Your task to perform on an android device: Search for the best rated mechanical keyboard on Amazon. Image 0: 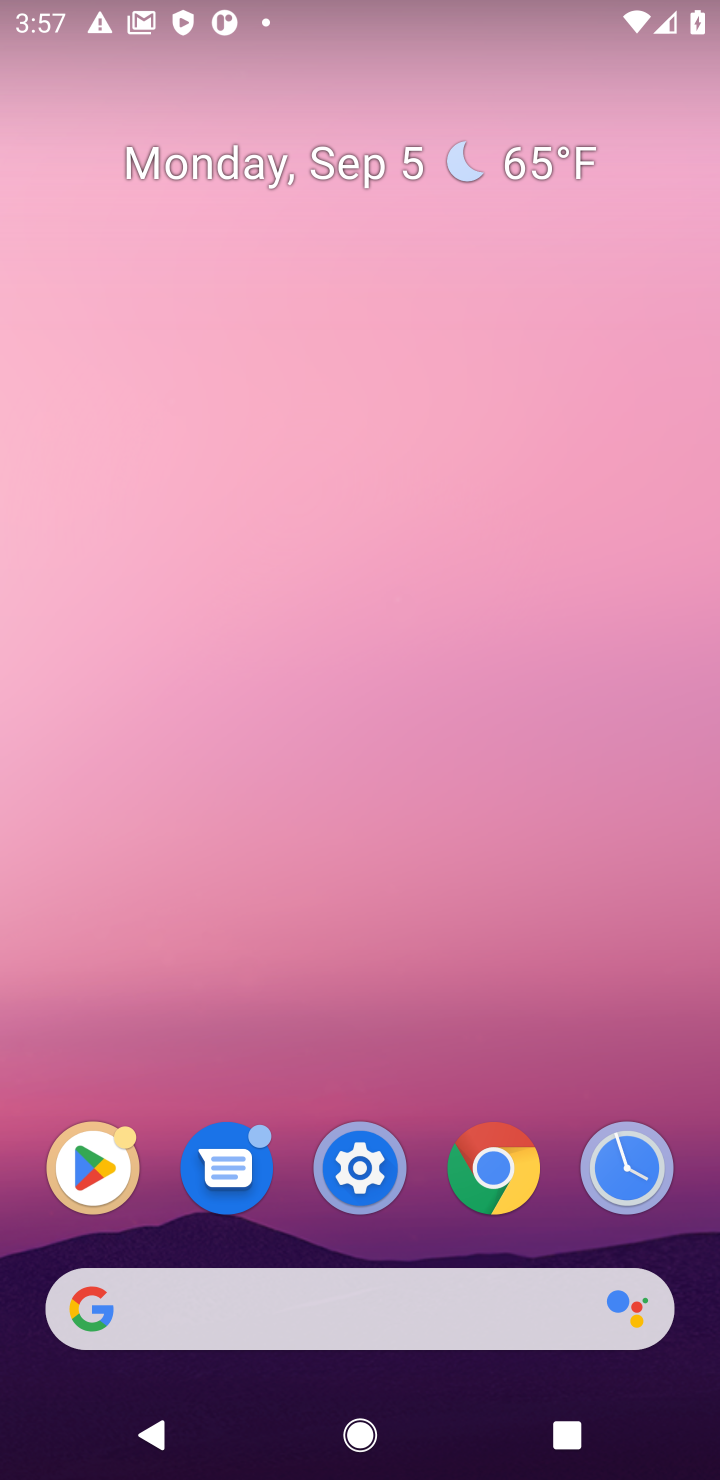
Step 0: click (510, 1174)
Your task to perform on an android device: Search for the best rated mechanical keyboard on Amazon. Image 1: 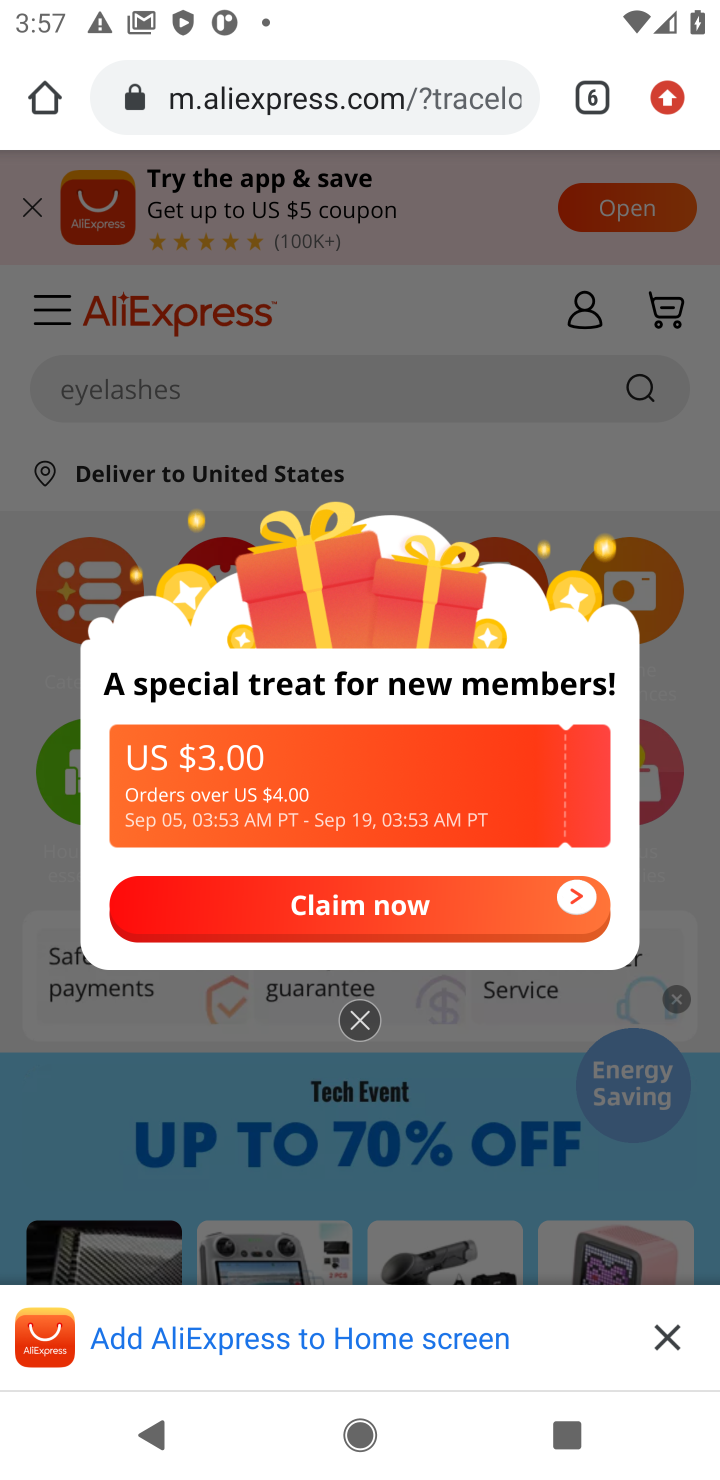
Step 1: click (590, 84)
Your task to perform on an android device: Search for the best rated mechanical keyboard on Amazon. Image 2: 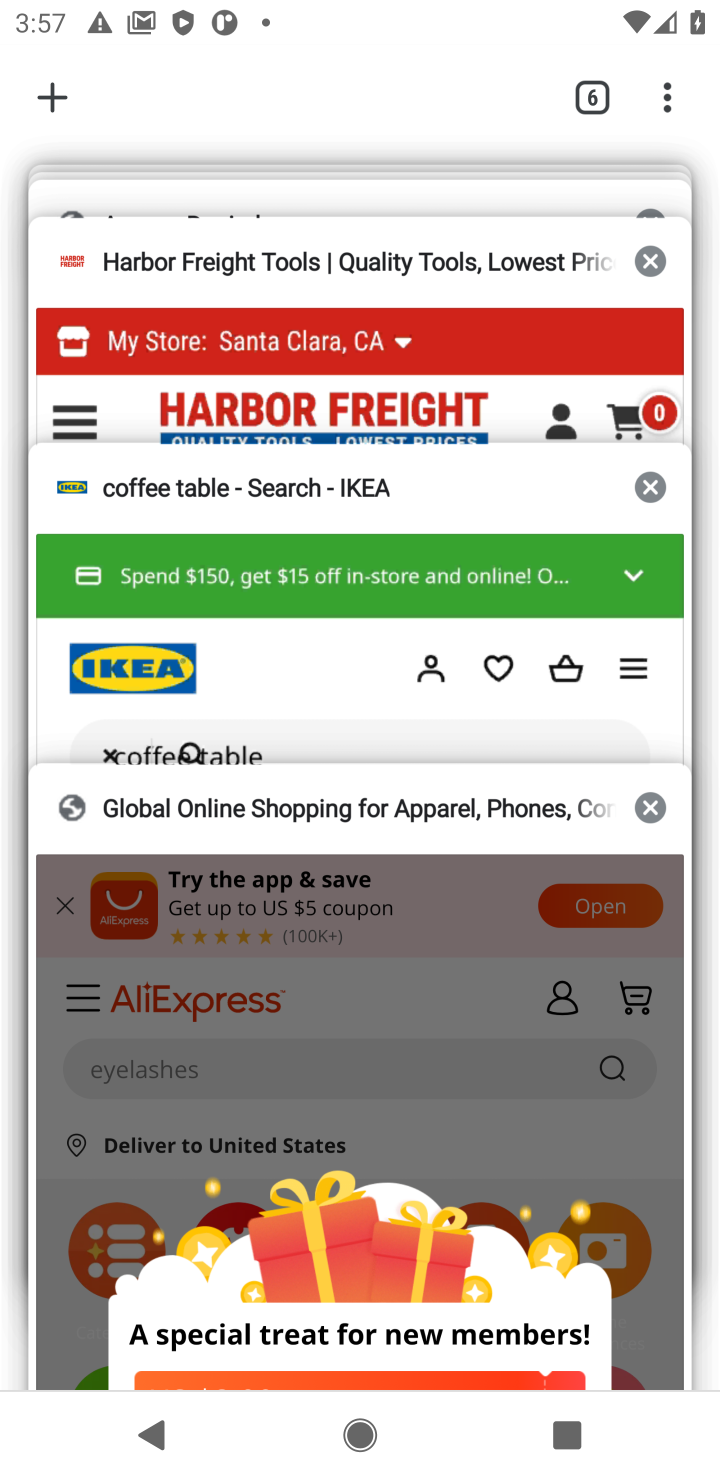
Step 2: click (46, 114)
Your task to perform on an android device: Search for the best rated mechanical keyboard on Amazon. Image 3: 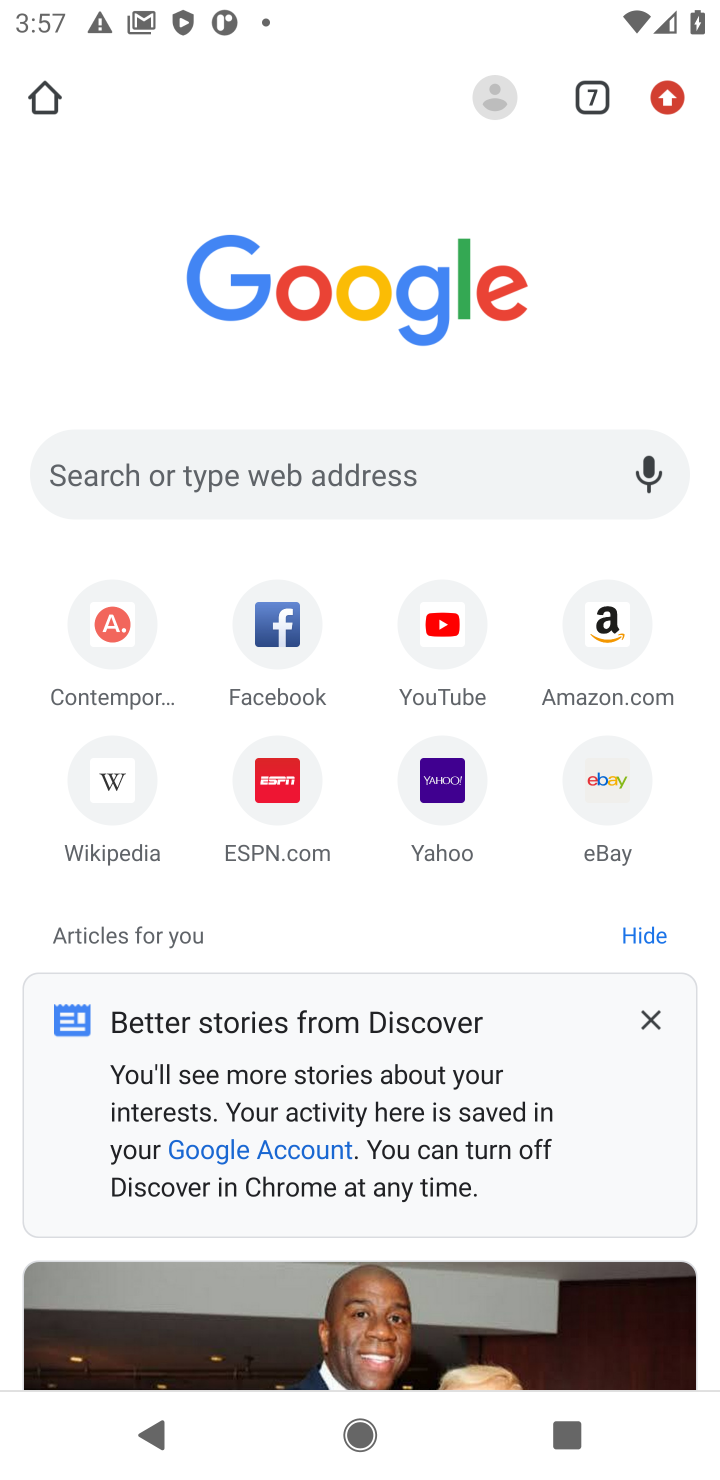
Step 3: click (615, 655)
Your task to perform on an android device: Search for the best rated mechanical keyboard on Amazon. Image 4: 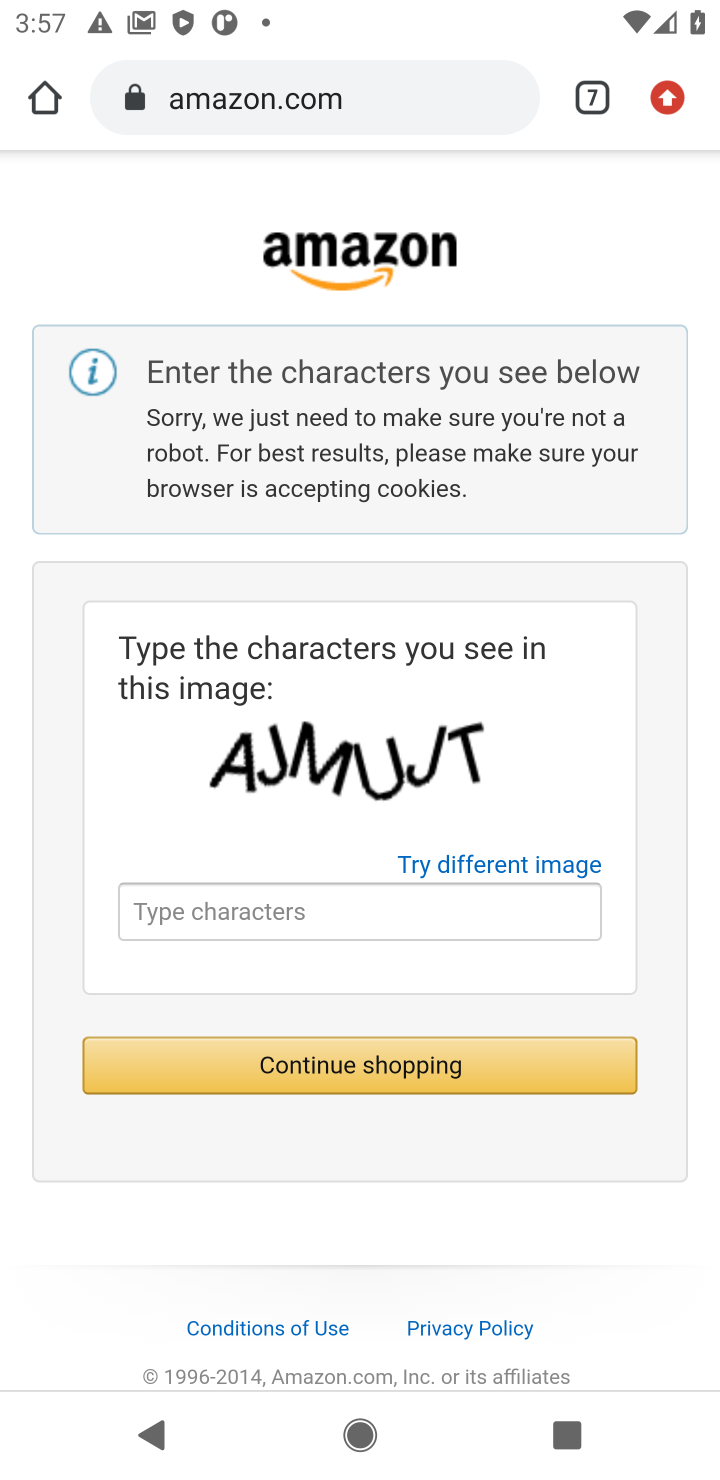
Step 4: click (27, 91)
Your task to perform on an android device: Search for the best rated mechanical keyboard on Amazon. Image 5: 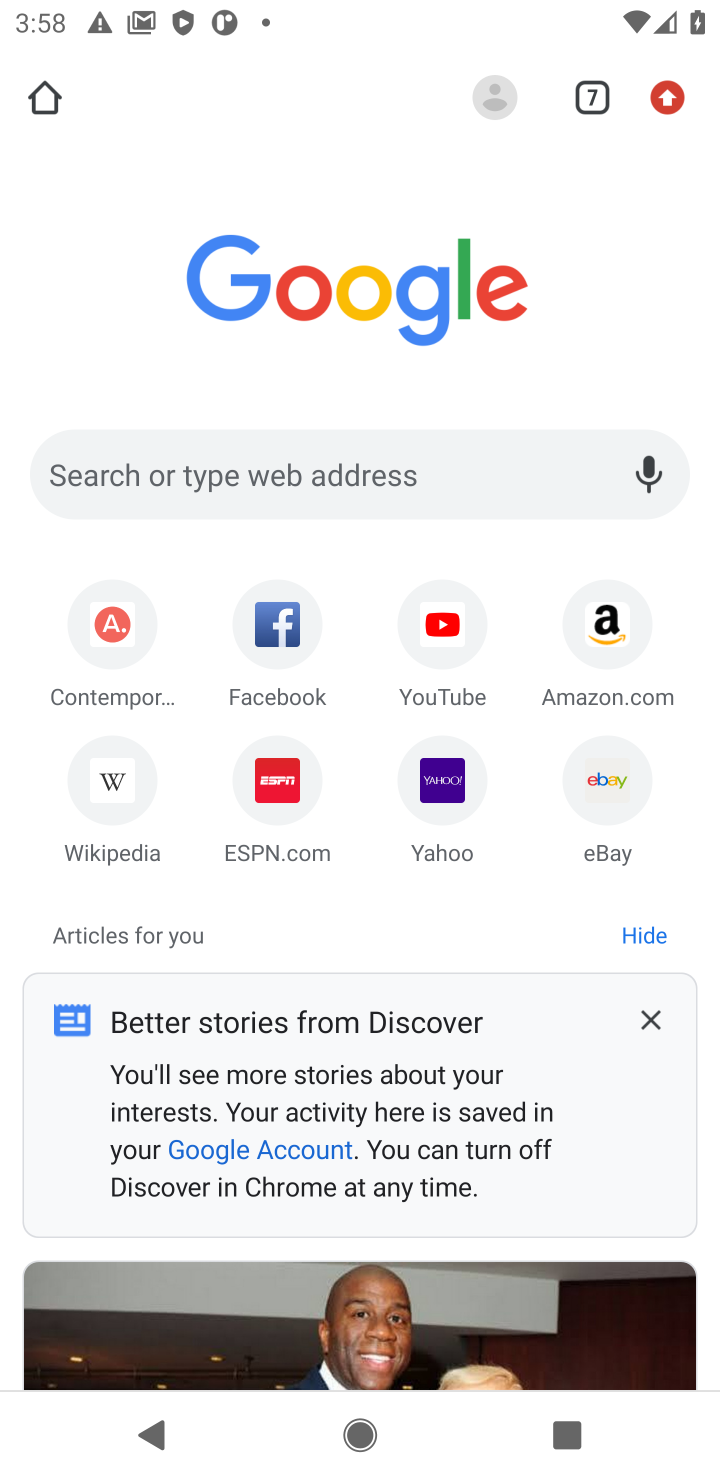
Step 5: click (605, 632)
Your task to perform on an android device: Search for the best rated mechanical keyboard on Amazon. Image 6: 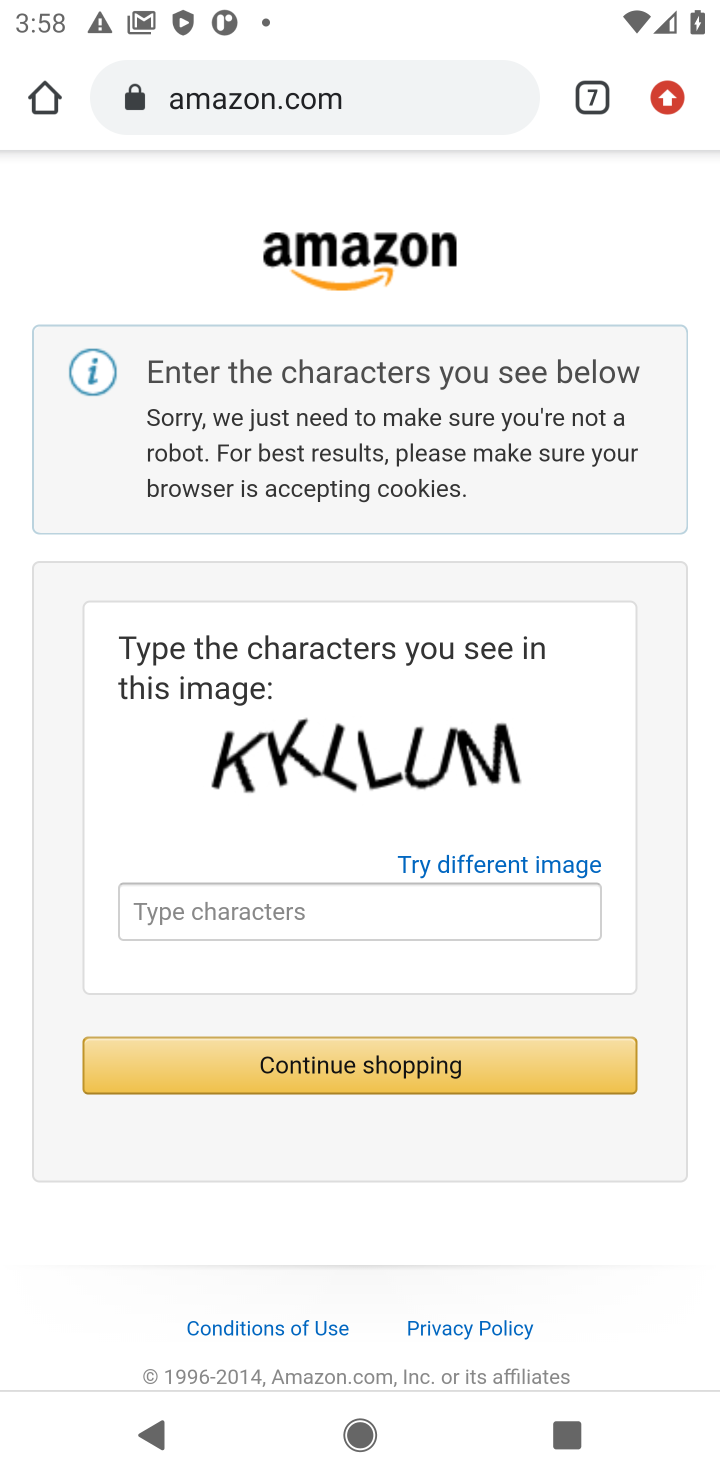
Step 6: click (227, 917)
Your task to perform on an android device: Search for the best rated mechanical keyboard on Amazon. Image 7: 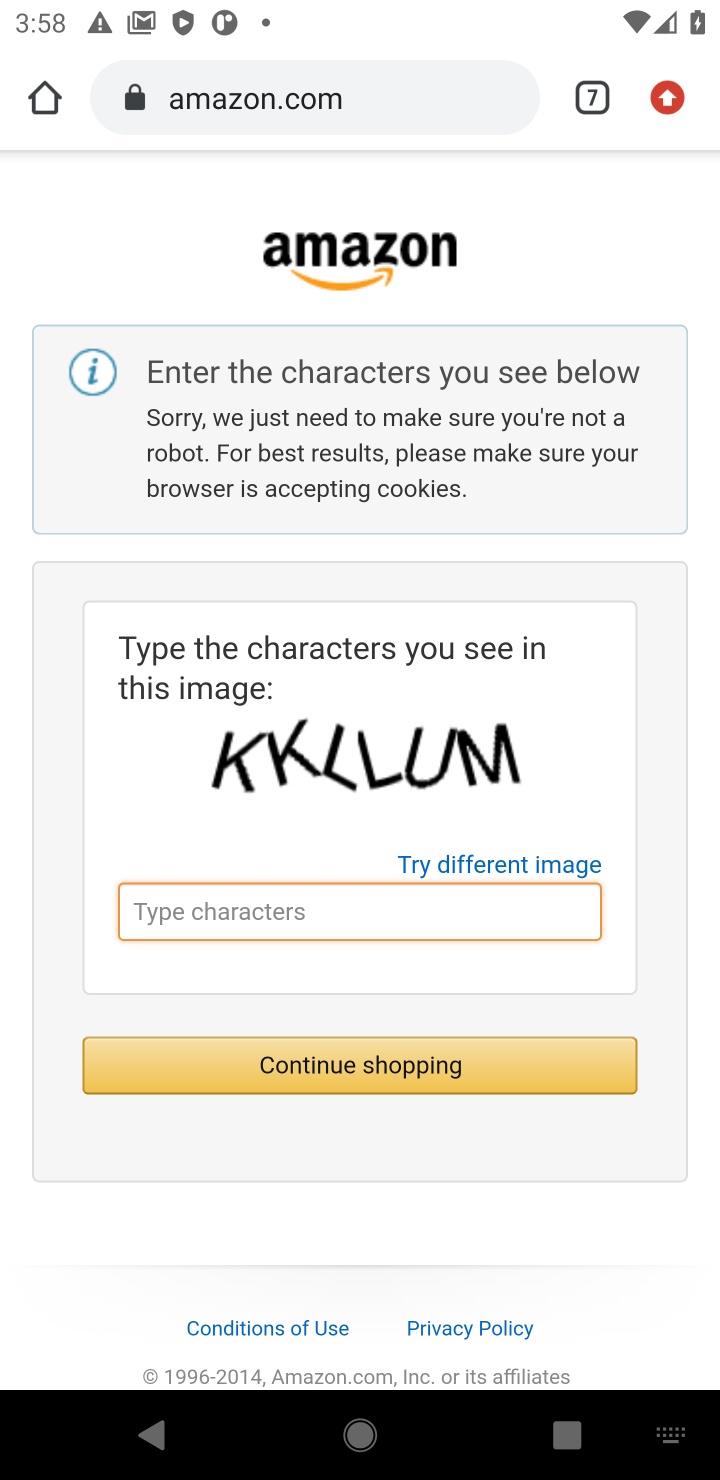
Step 7: click (227, 917)
Your task to perform on an android device: Search for the best rated mechanical keyboard on Amazon. Image 8: 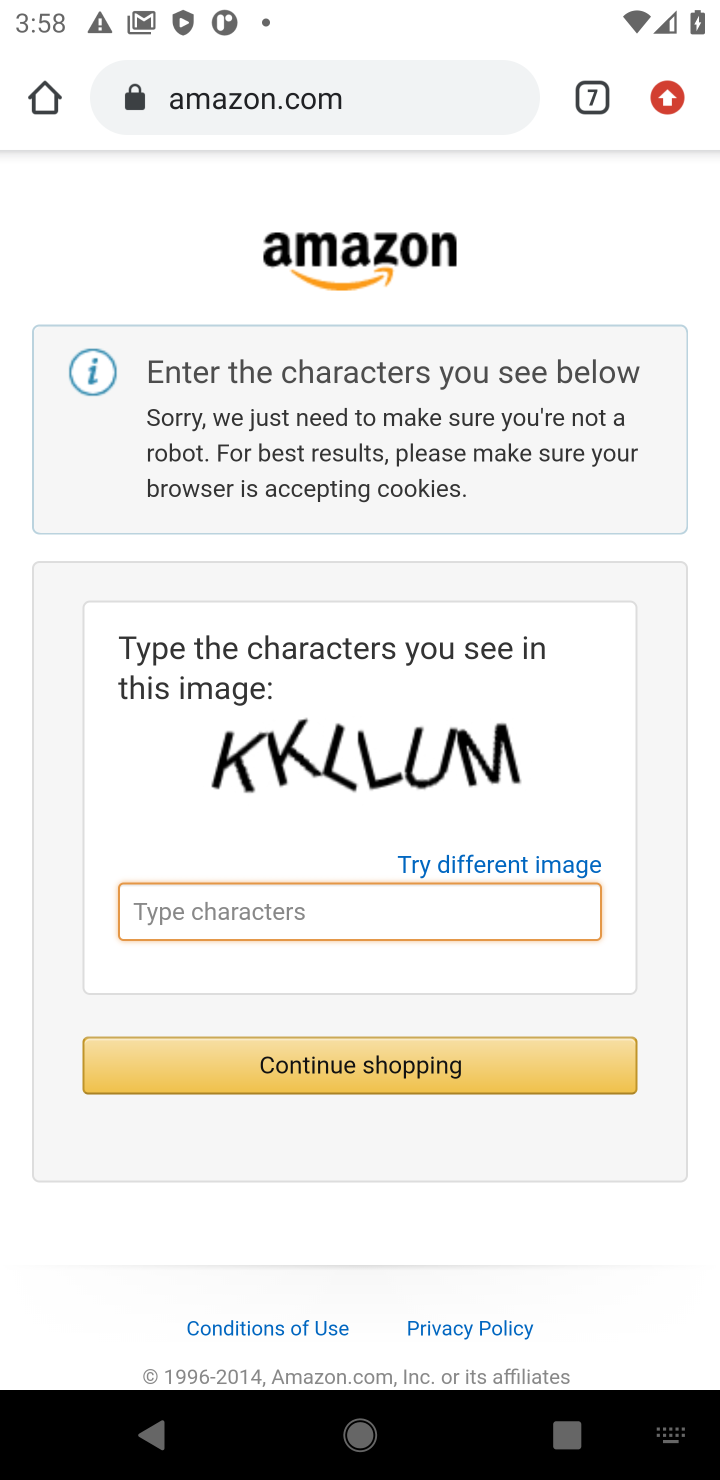
Step 8: type "KKLLUM"
Your task to perform on an android device: Search for the best rated mechanical keyboard on Amazon. Image 9: 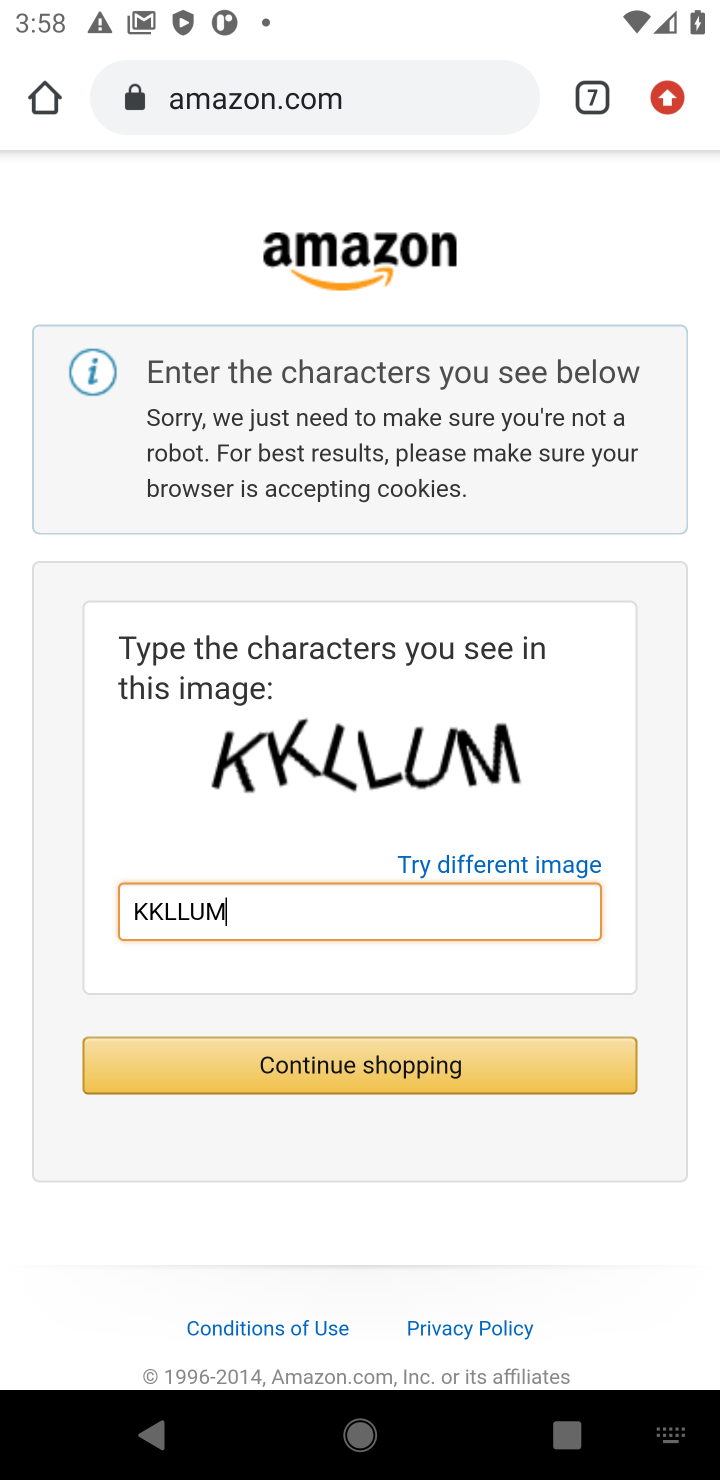
Step 9: click (282, 1077)
Your task to perform on an android device: Search for the best rated mechanical keyboard on Amazon. Image 10: 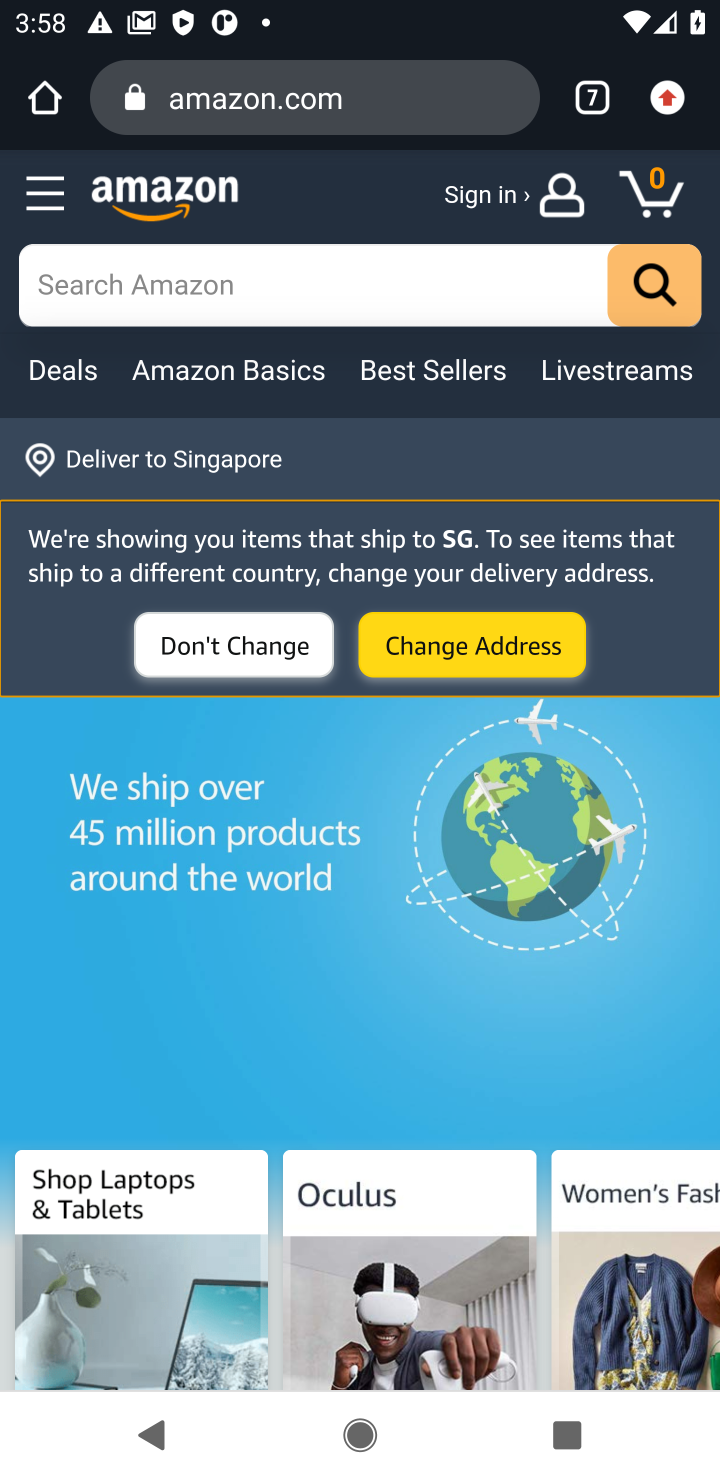
Step 10: click (186, 279)
Your task to perform on an android device: Search for the best rated mechanical keyboard on Amazon. Image 11: 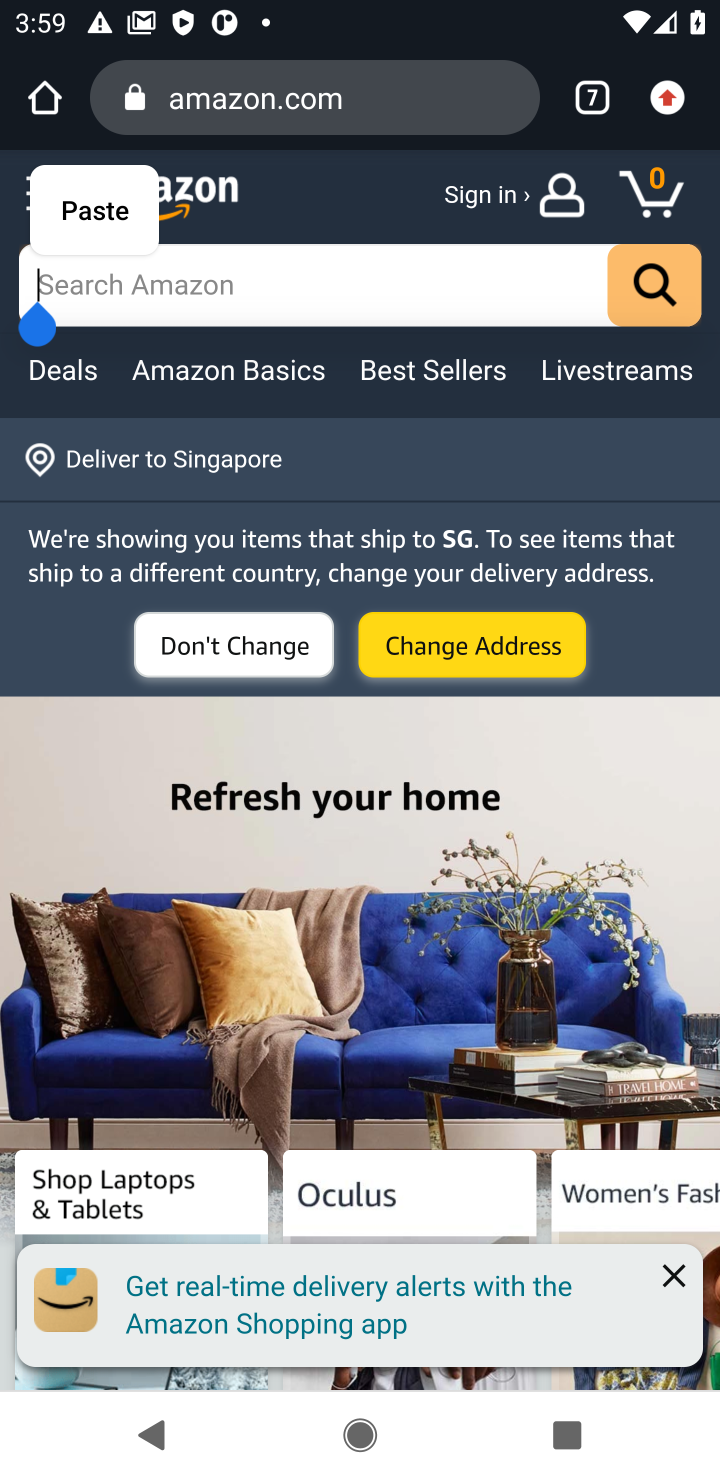
Step 11: type "best rated mechanical keyboard"
Your task to perform on an android device: Search for the best rated mechanical keyboard on Amazon. Image 12: 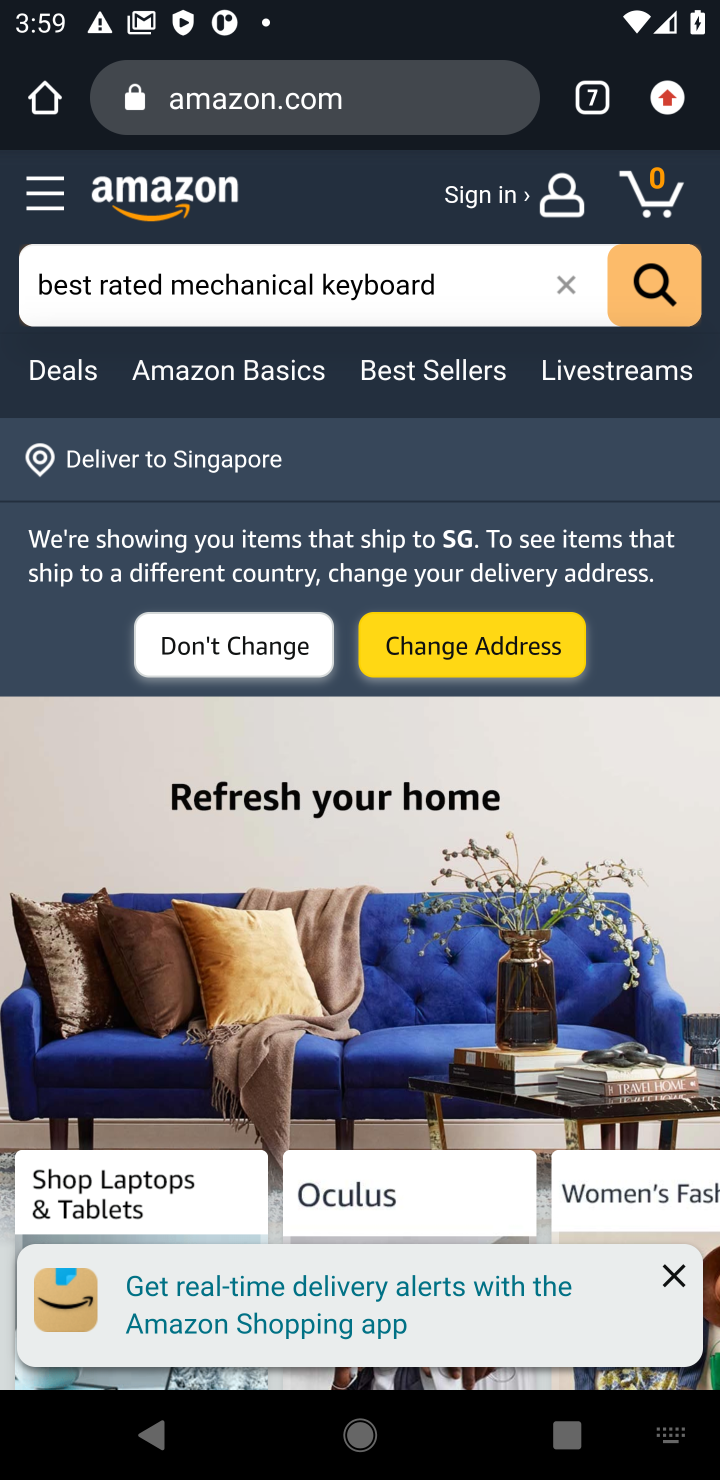
Step 12: click (657, 282)
Your task to perform on an android device: Search for the best rated mechanical keyboard on Amazon. Image 13: 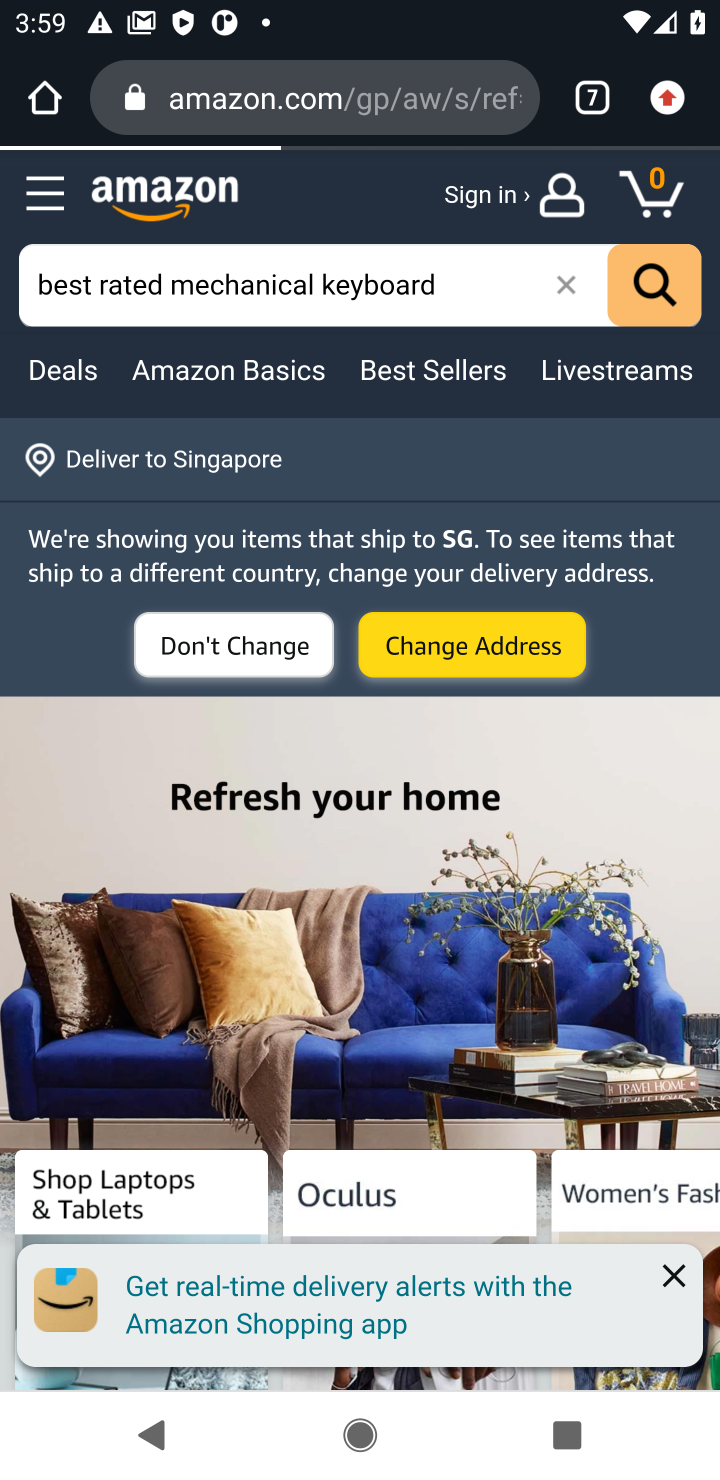
Step 13: click (657, 282)
Your task to perform on an android device: Search for the best rated mechanical keyboard on Amazon. Image 14: 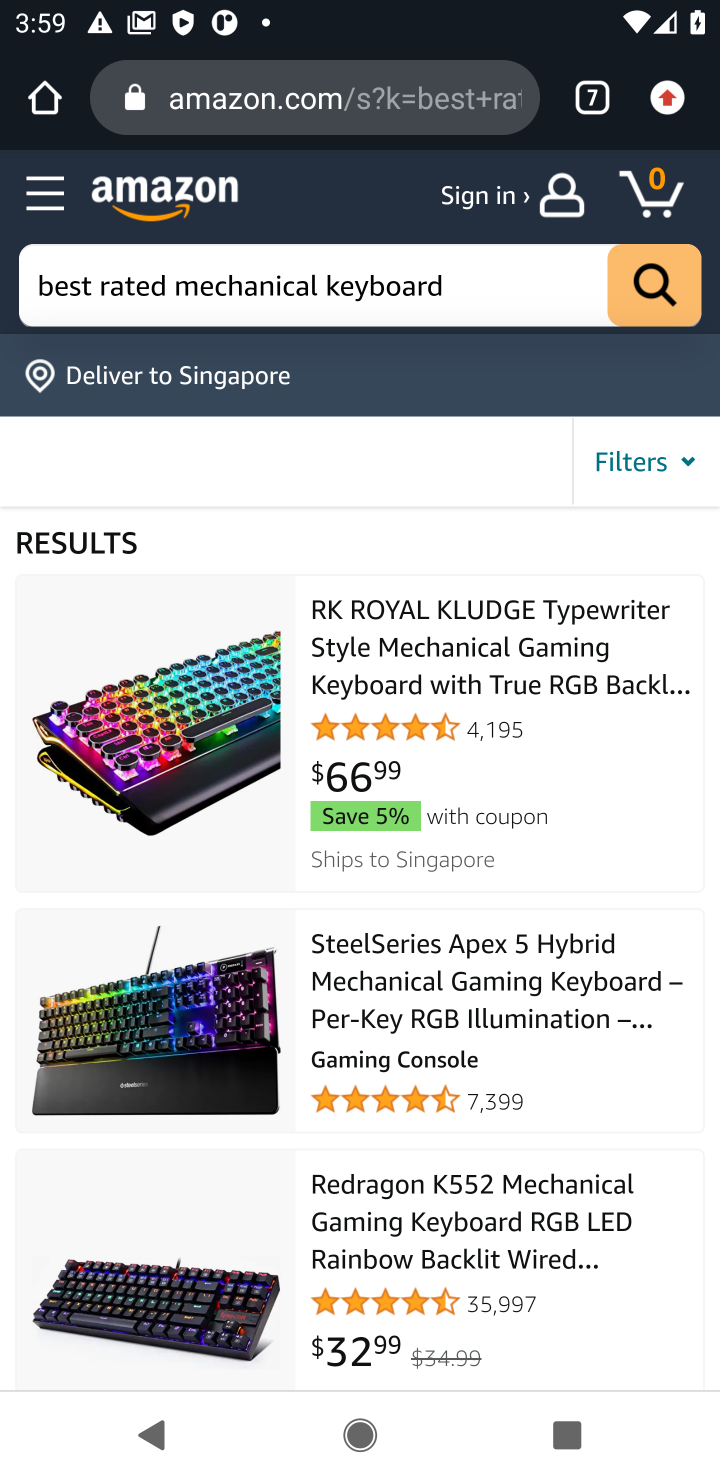
Step 14: click (657, 282)
Your task to perform on an android device: Search for the best rated mechanical keyboard on Amazon. Image 15: 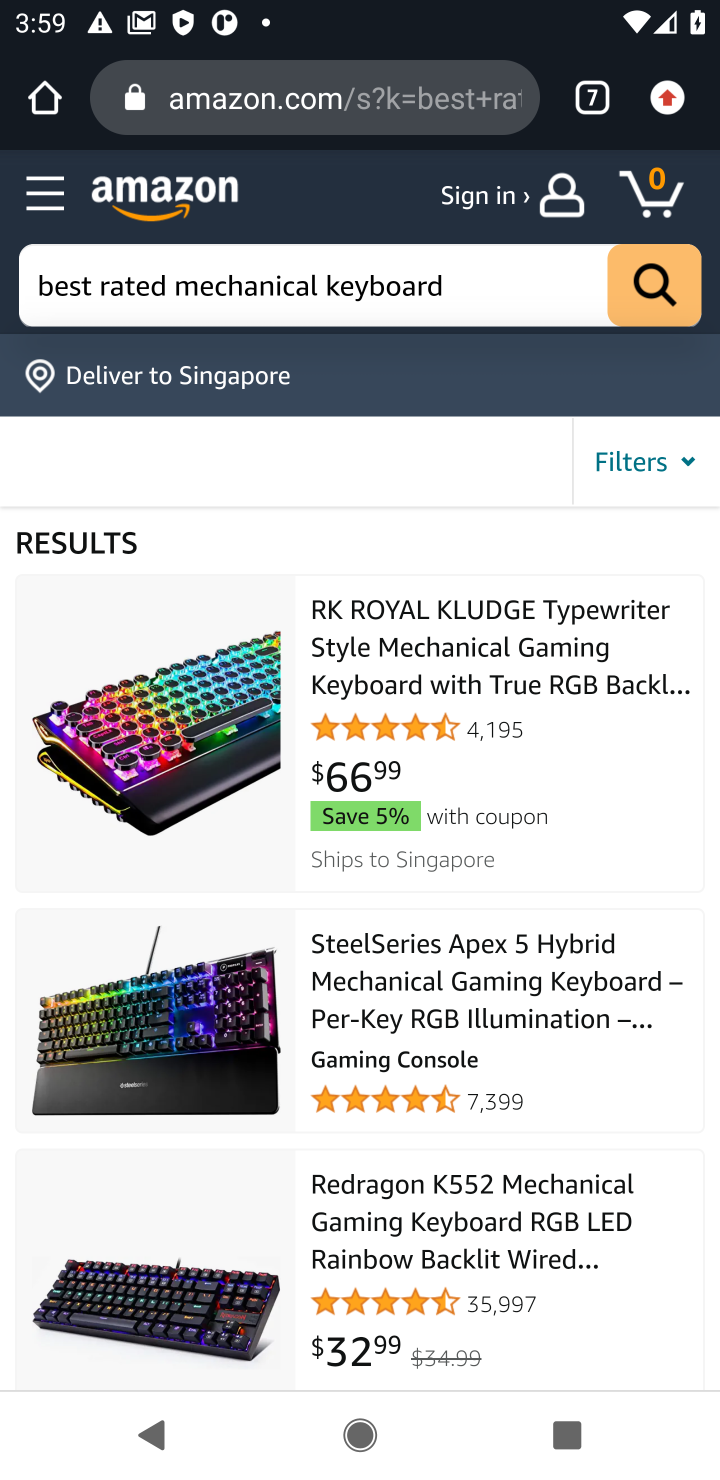
Step 15: click (657, 282)
Your task to perform on an android device: Search for the best rated mechanical keyboard on Amazon. Image 16: 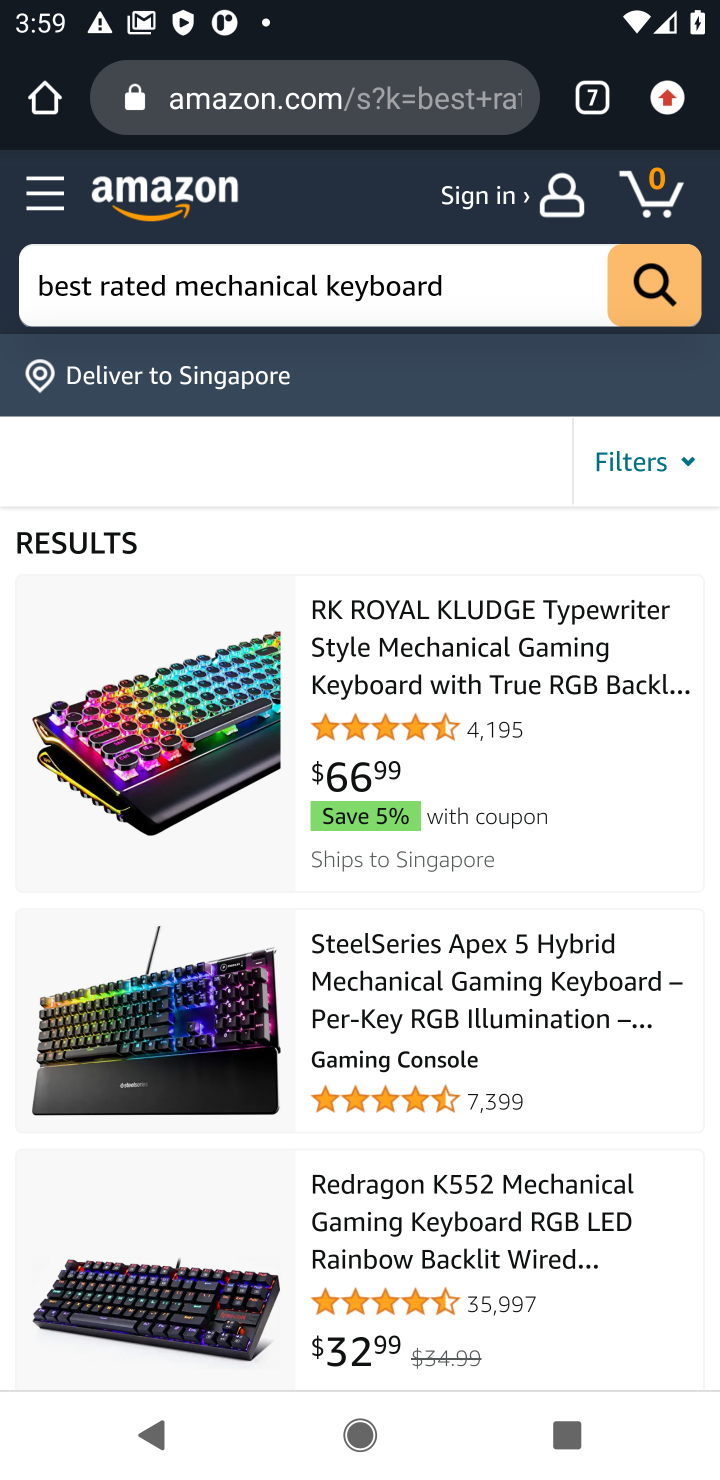
Step 16: task complete